Your task to perform on an android device: Open Google Image 0: 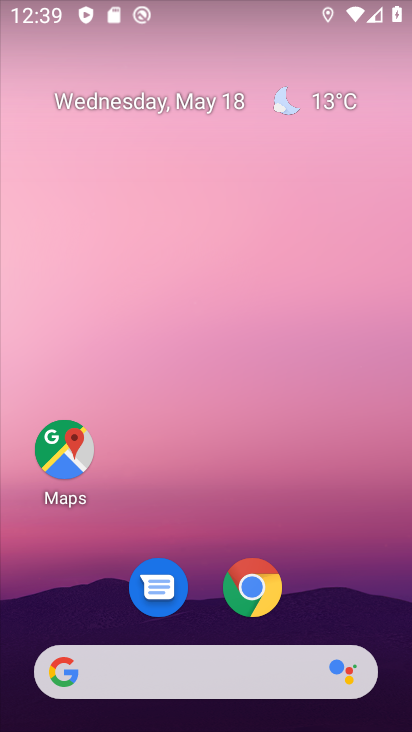
Step 0: drag from (204, 635) to (276, 125)
Your task to perform on an android device: Open Google Image 1: 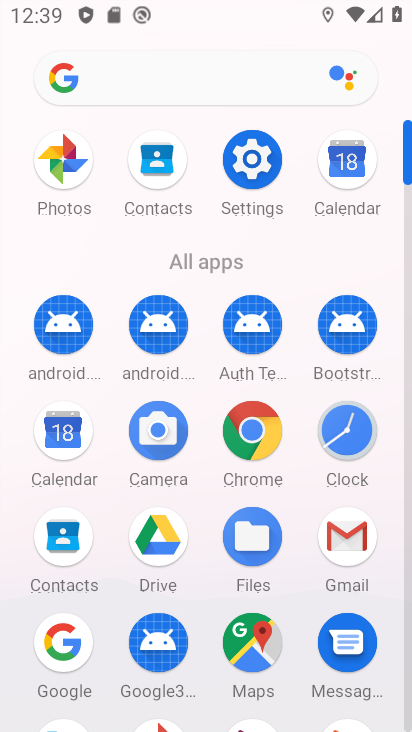
Step 1: click (66, 647)
Your task to perform on an android device: Open Google Image 2: 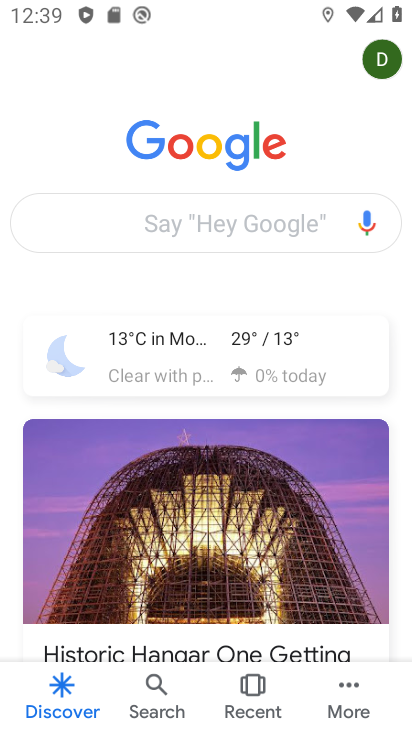
Step 2: task complete